Your task to perform on an android device: Open battery settings Image 0: 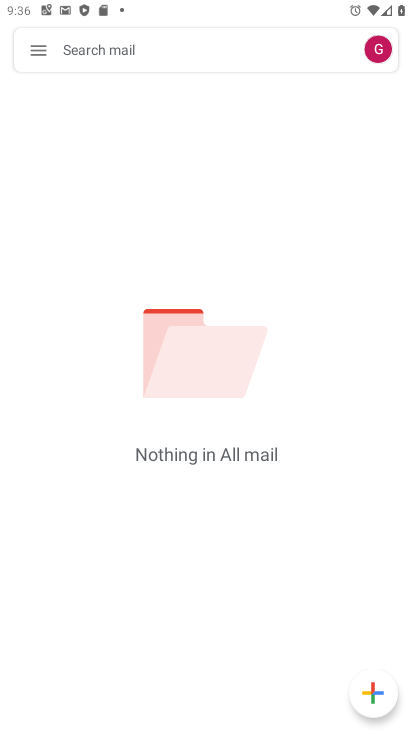
Step 0: press home button
Your task to perform on an android device: Open battery settings Image 1: 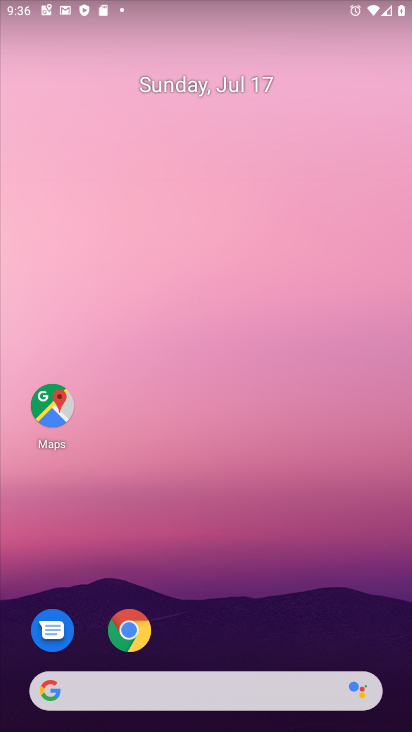
Step 1: drag from (315, 630) to (318, 111)
Your task to perform on an android device: Open battery settings Image 2: 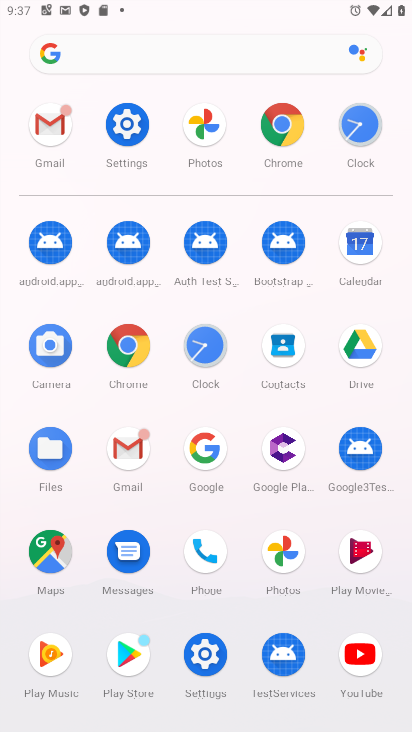
Step 2: click (129, 126)
Your task to perform on an android device: Open battery settings Image 3: 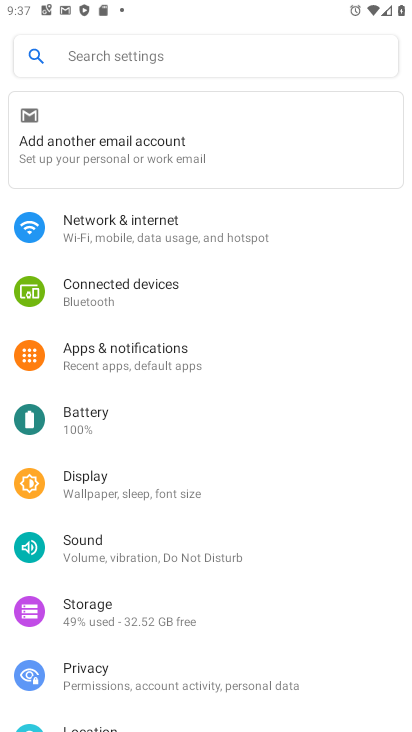
Step 3: drag from (306, 513) to (334, 275)
Your task to perform on an android device: Open battery settings Image 4: 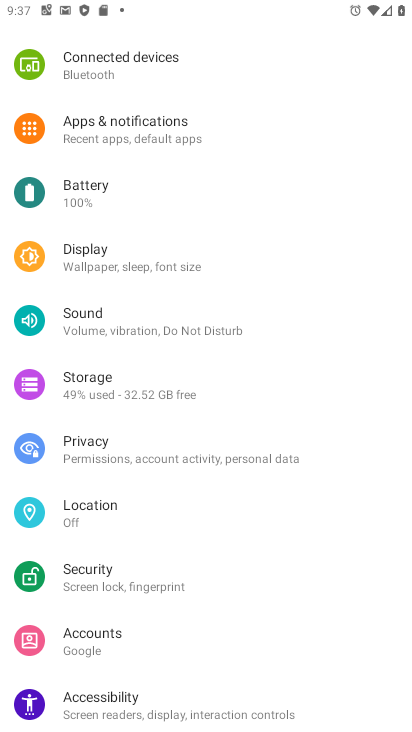
Step 4: drag from (333, 566) to (344, 386)
Your task to perform on an android device: Open battery settings Image 5: 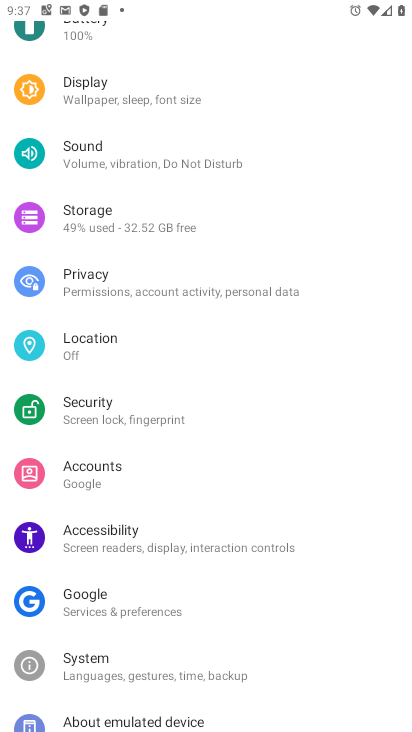
Step 5: drag from (337, 474) to (339, 358)
Your task to perform on an android device: Open battery settings Image 6: 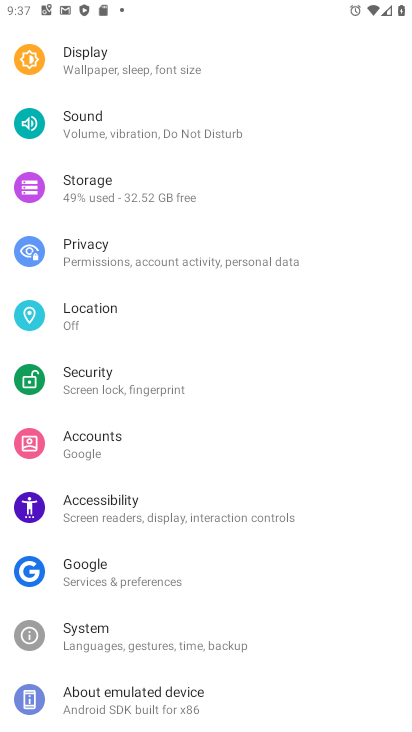
Step 6: drag from (333, 283) to (330, 389)
Your task to perform on an android device: Open battery settings Image 7: 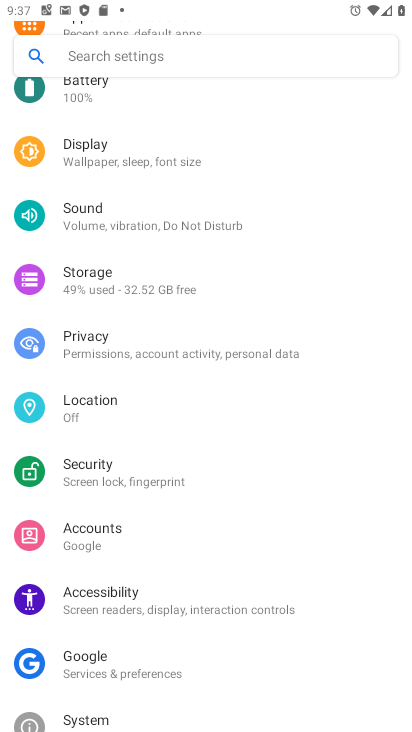
Step 7: drag from (332, 263) to (329, 373)
Your task to perform on an android device: Open battery settings Image 8: 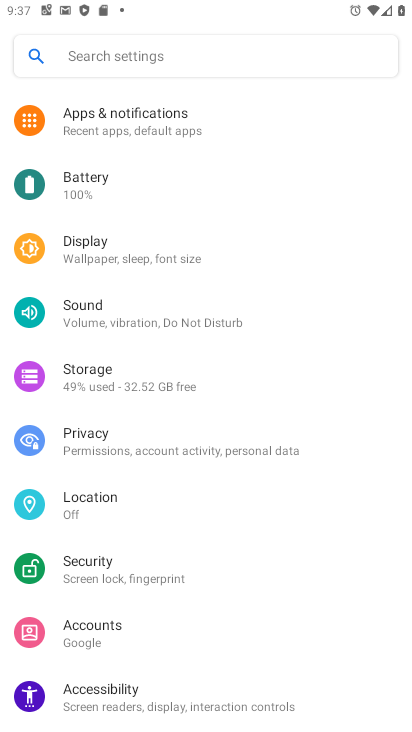
Step 8: drag from (327, 225) to (332, 378)
Your task to perform on an android device: Open battery settings Image 9: 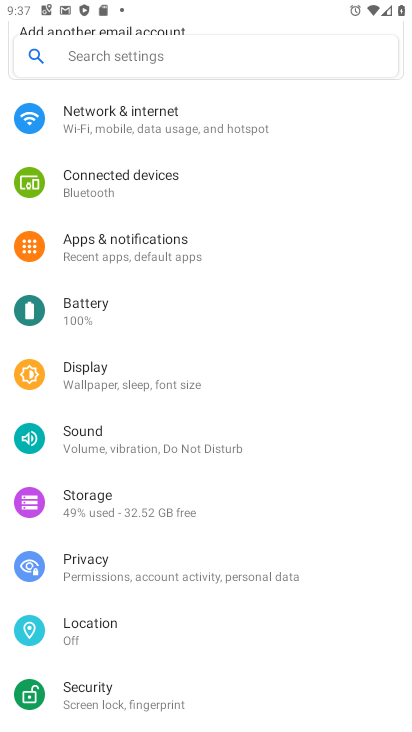
Step 9: drag from (326, 245) to (333, 428)
Your task to perform on an android device: Open battery settings Image 10: 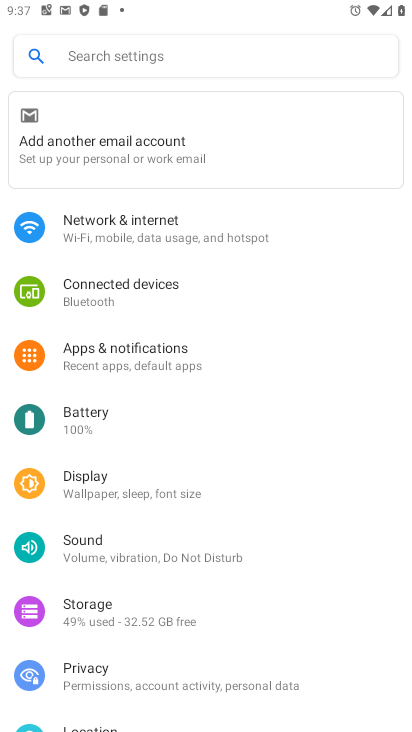
Step 10: click (148, 415)
Your task to perform on an android device: Open battery settings Image 11: 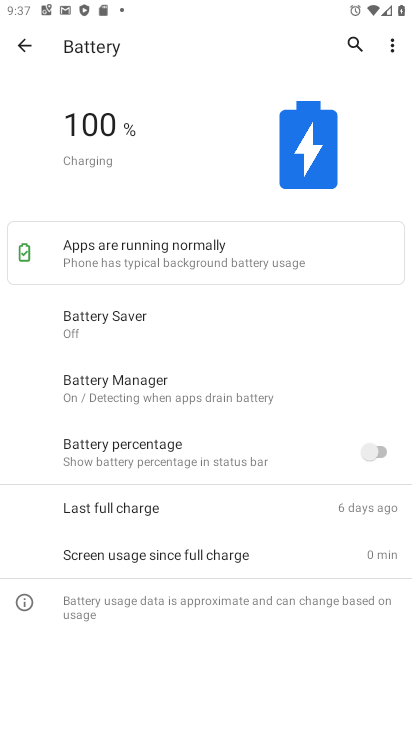
Step 11: task complete